Your task to perform on an android device: Show me popular videos on Youtube Image 0: 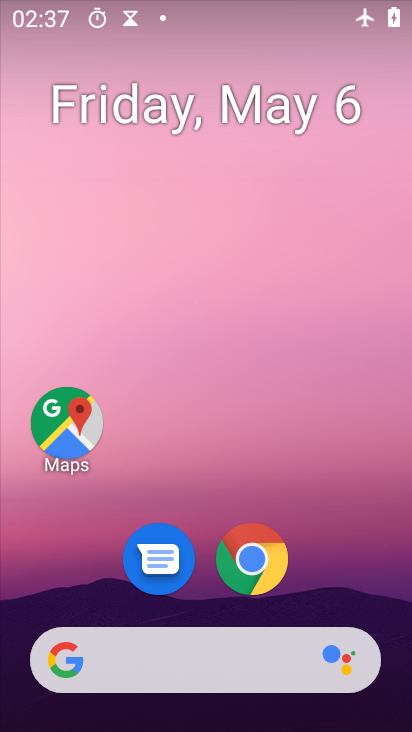
Step 0: drag from (293, 629) to (302, 44)
Your task to perform on an android device: Show me popular videos on Youtube Image 1: 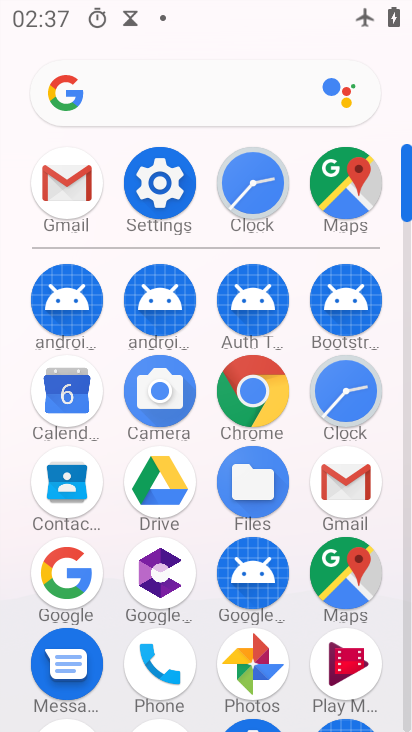
Step 1: drag from (293, 654) to (305, 218)
Your task to perform on an android device: Show me popular videos on Youtube Image 2: 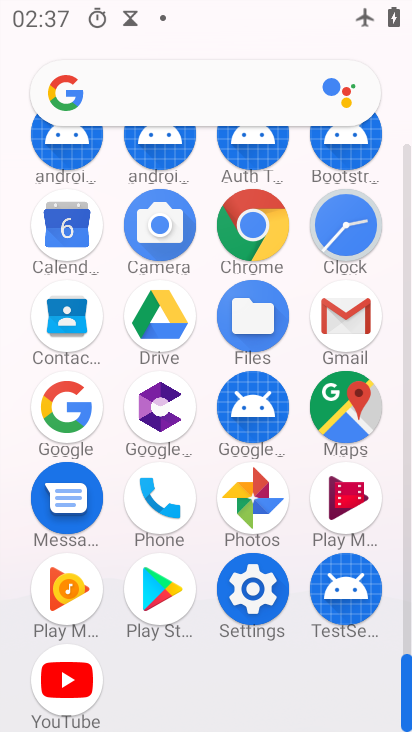
Step 2: click (59, 682)
Your task to perform on an android device: Show me popular videos on Youtube Image 3: 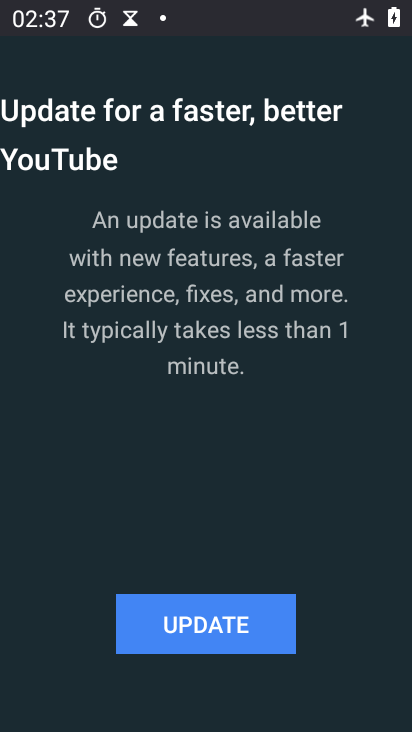
Step 3: click (246, 632)
Your task to perform on an android device: Show me popular videos on Youtube Image 4: 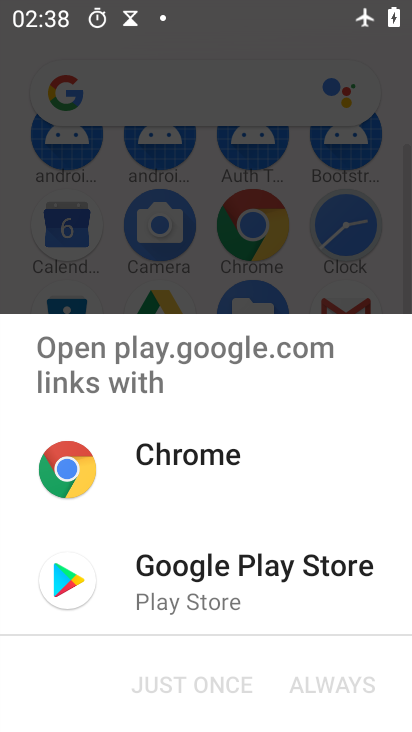
Step 4: click (290, 577)
Your task to perform on an android device: Show me popular videos on Youtube Image 5: 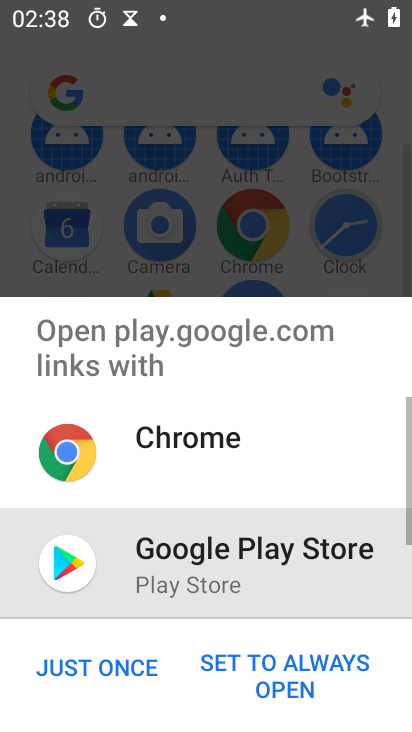
Step 5: click (121, 666)
Your task to perform on an android device: Show me popular videos on Youtube Image 6: 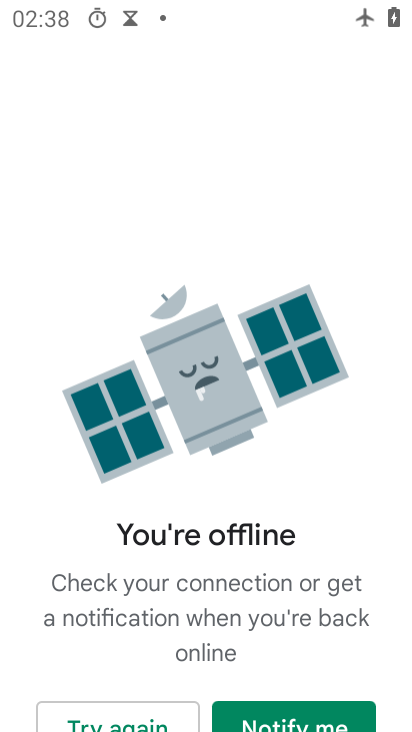
Step 6: task complete